Your task to perform on an android device: toggle wifi Image 0: 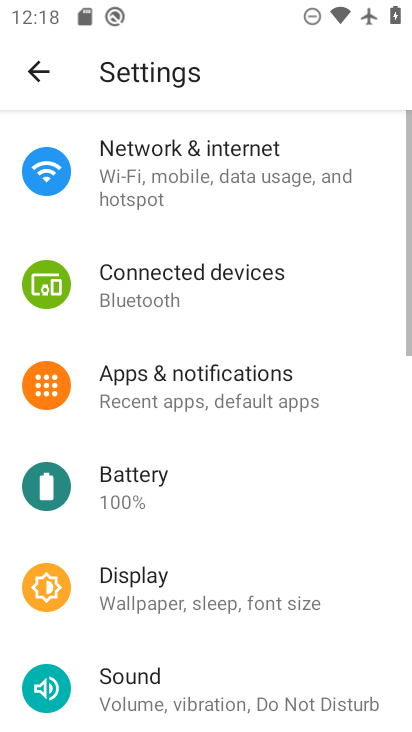
Step 0: click (225, 165)
Your task to perform on an android device: toggle wifi Image 1: 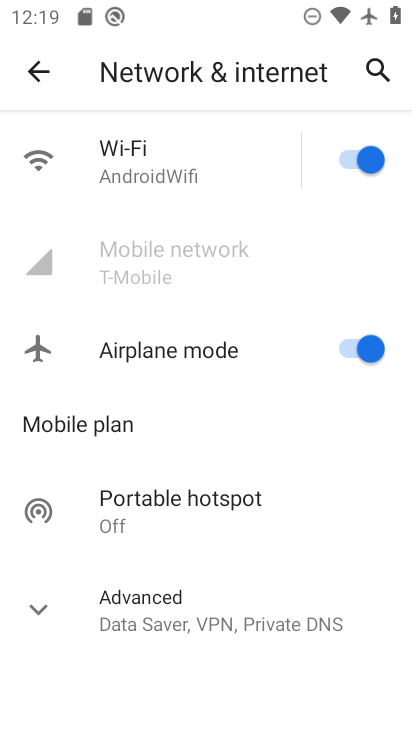
Step 1: click (370, 163)
Your task to perform on an android device: toggle wifi Image 2: 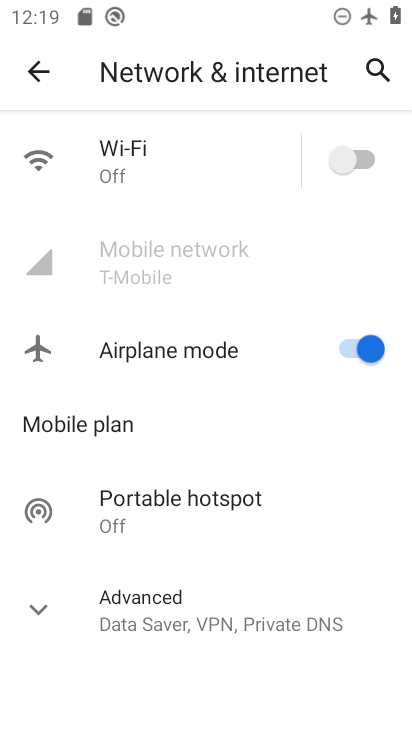
Step 2: task complete